Your task to perform on an android device: move a message to another label in the gmail app Image 0: 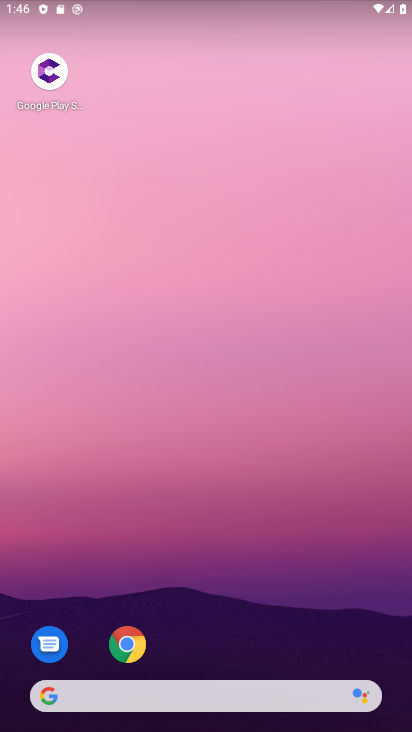
Step 0: drag from (209, 709) to (209, 98)
Your task to perform on an android device: move a message to another label in the gmail app Image 1: 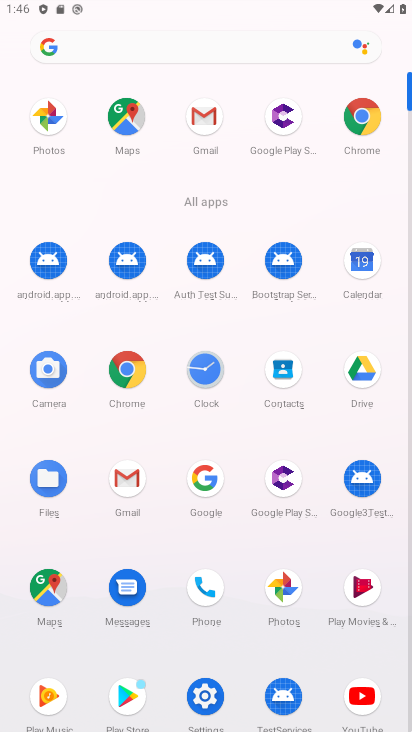
Step 1: click (207, 114)
Your task to perform on an android device: move a message to another label in the gmail app Image 2: 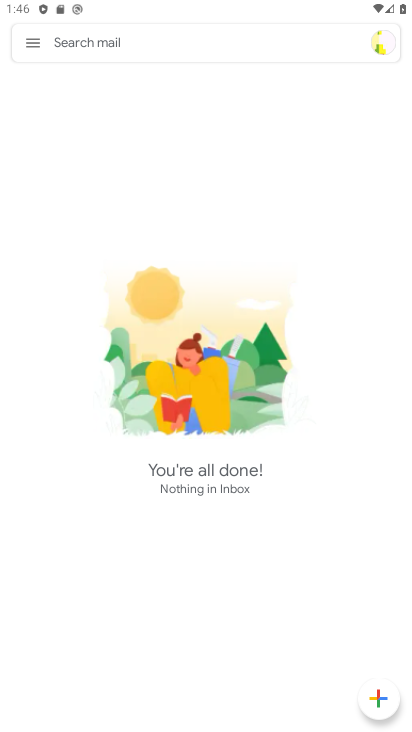
Step 2: task complete